Your task to perform on an android device: Open internet settings Image 0: 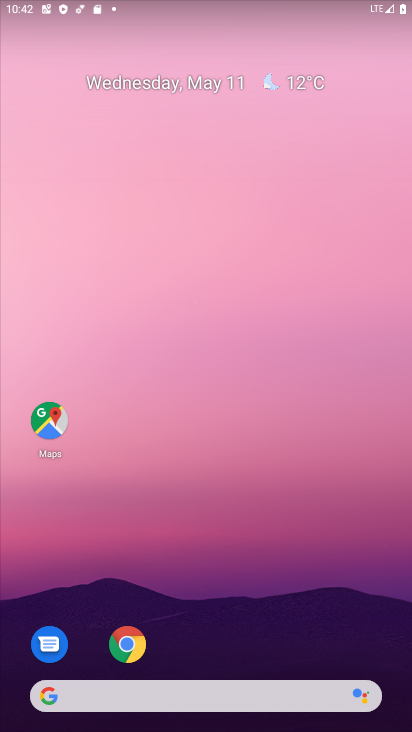
Step 0: drag from (278, 646) to (230, 38)
Your task to perform on an android device: Open internet settings Image 1: 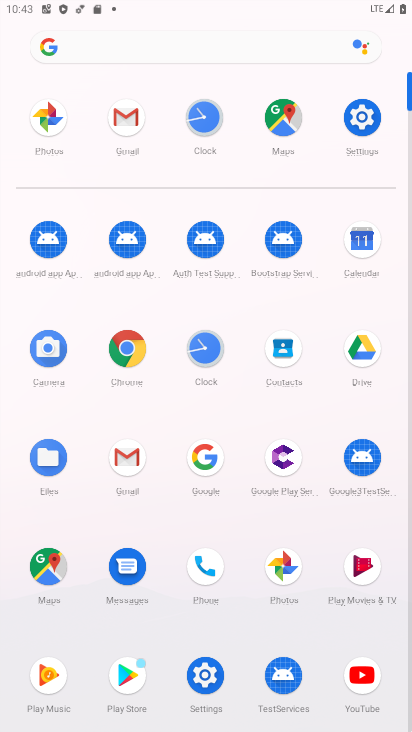
Step 1: click (371, 125)
Your task to perform on an android device: Open internet settings Image 2: 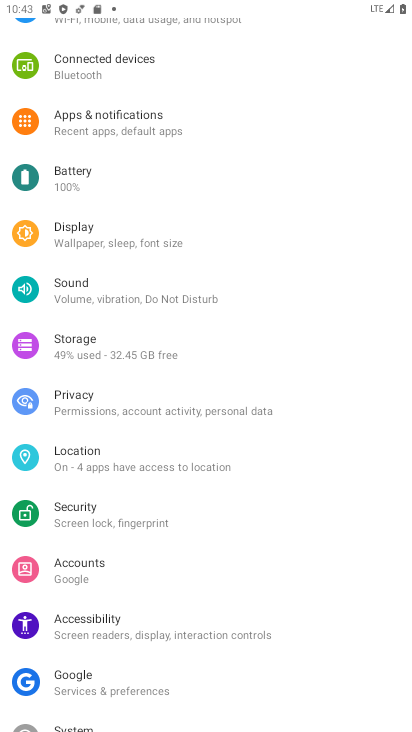
Step 2: drag from (129, 84) to (124, 531)
Your task to perform on an android device: Open internet settings Image 3: 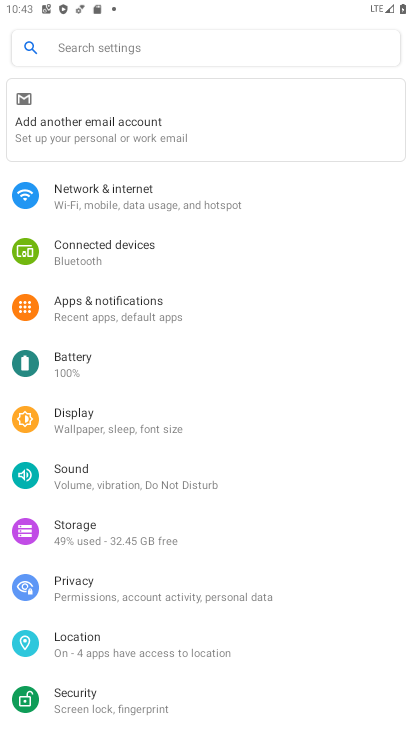
Step 3: click (115, 203)
Your task to perform on an android device: Open internet settings Image 4: 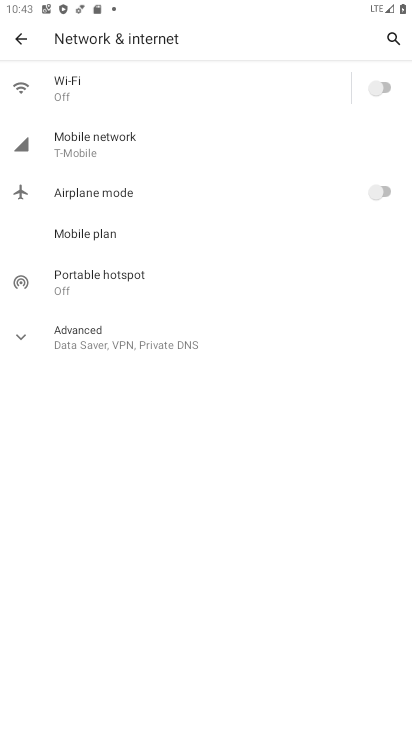
Step 4: task complete